Your task to perform on an android device: Search for a new lawnmower on Lowes.com Image 0: 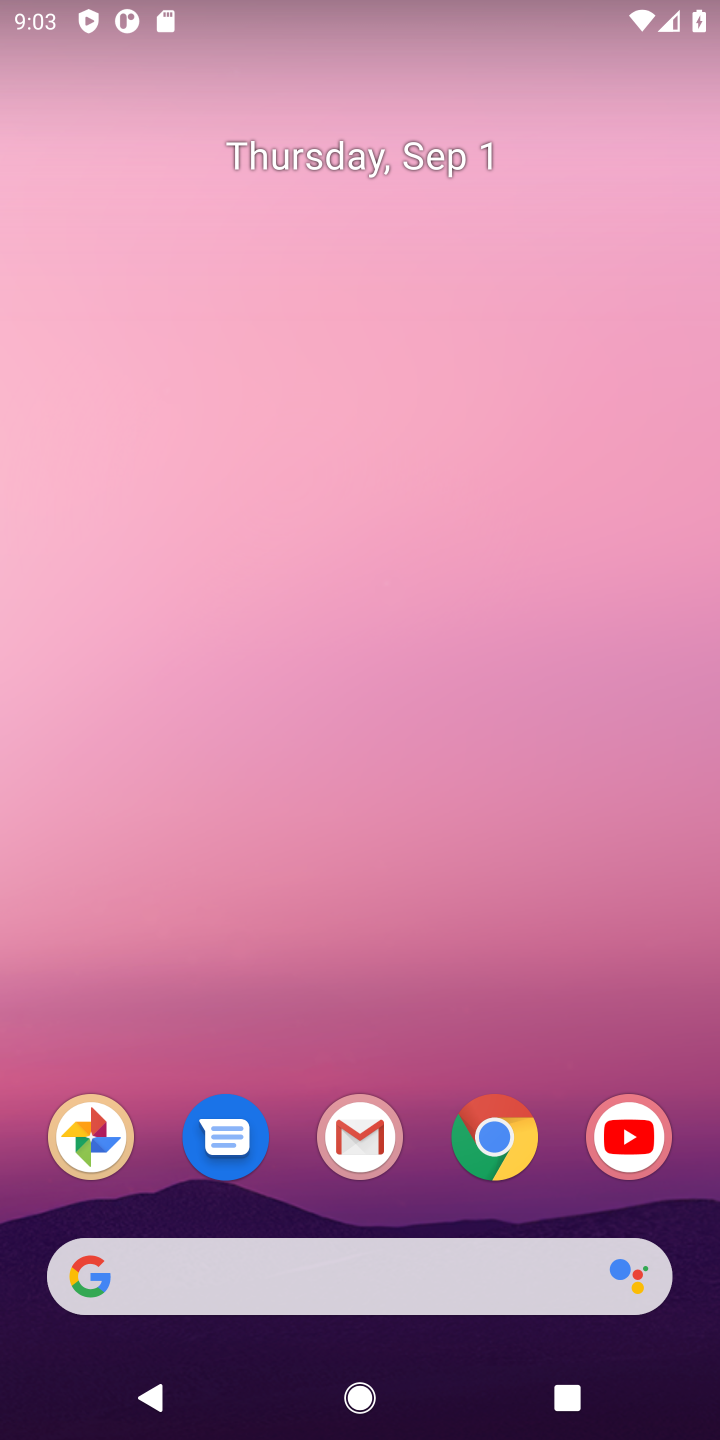
Step 0: drag from (453, 497) to (453, 122)
Your task to perform on an android device: Search for a new lawnmower on Lowes.com Image 1: 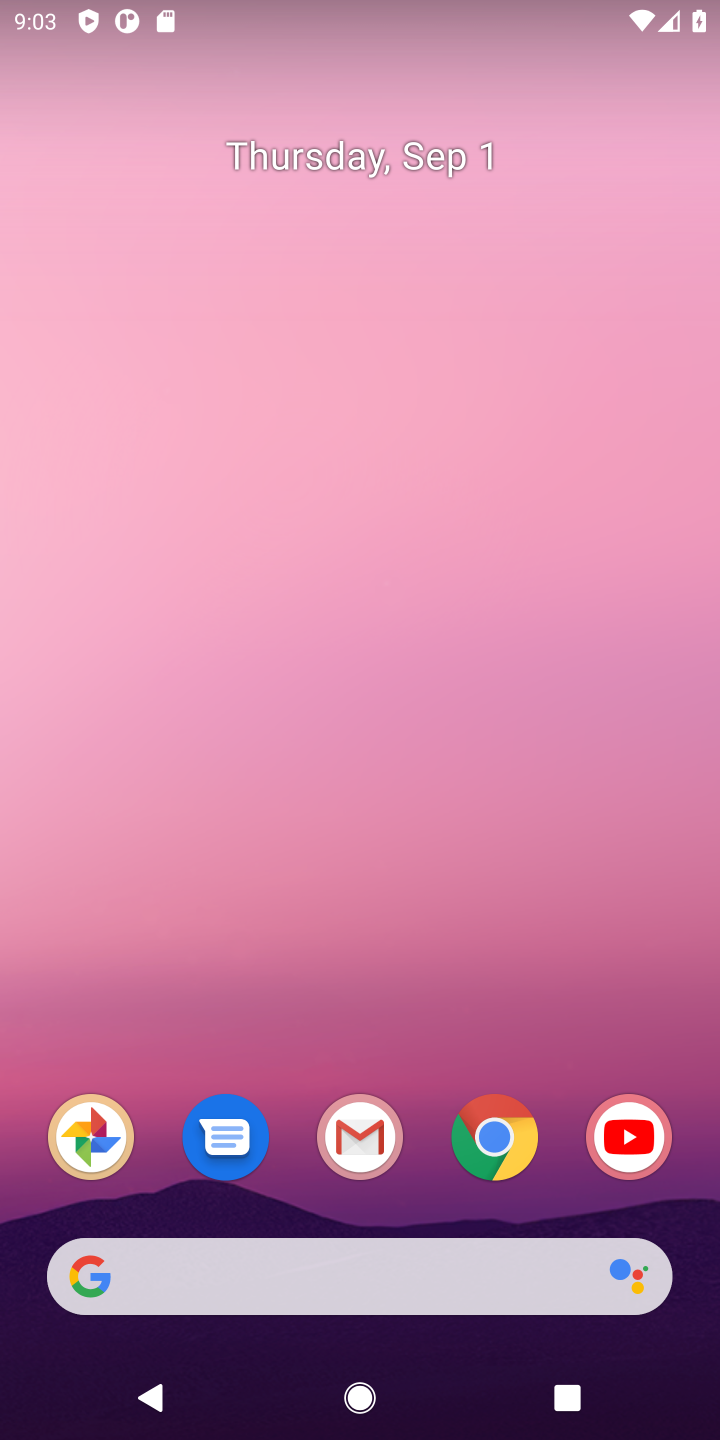
Step 1: click (491, 1132)
Your task to perform on an android device: Search for a new lawnmower on Lowes.com Image 2: 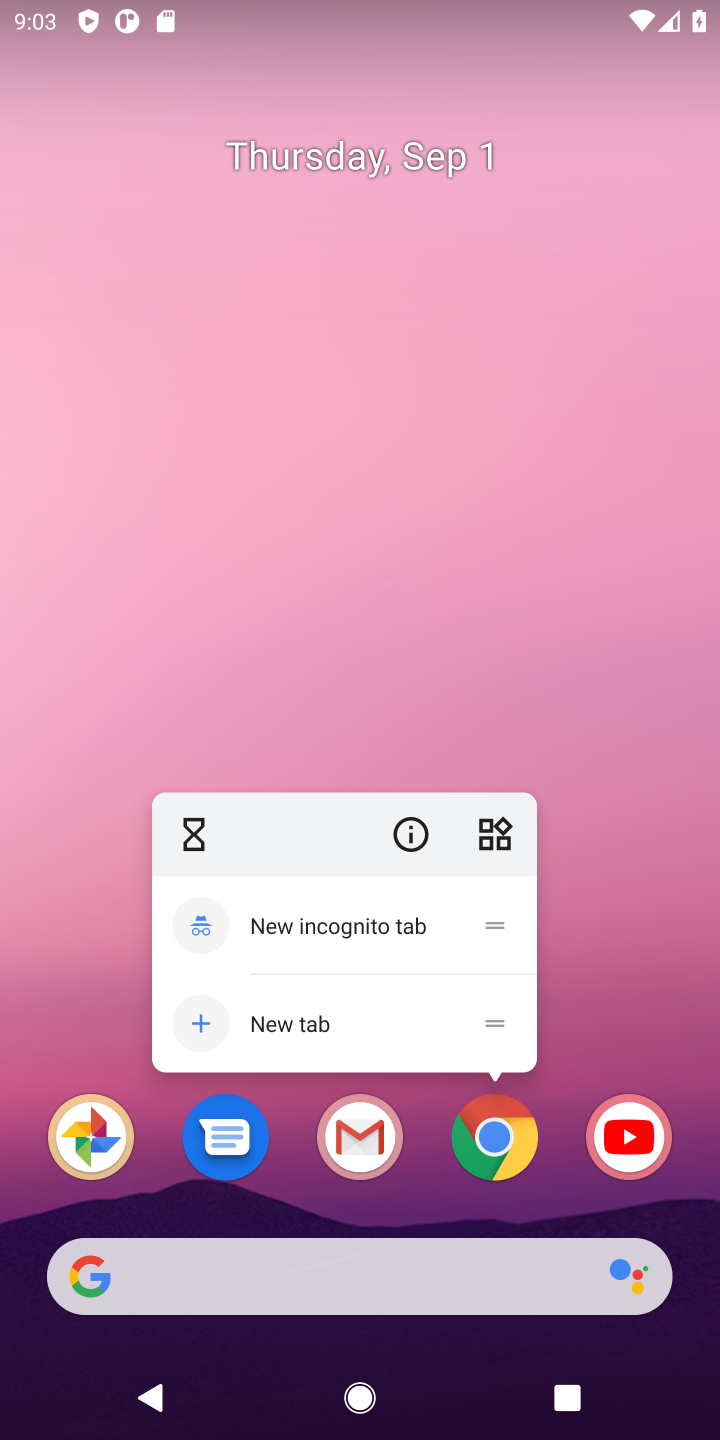
Step 2: click (491, 1138)
Your task to perform on an android device: Search for a new lawnmower on Lowes.com Image 3: 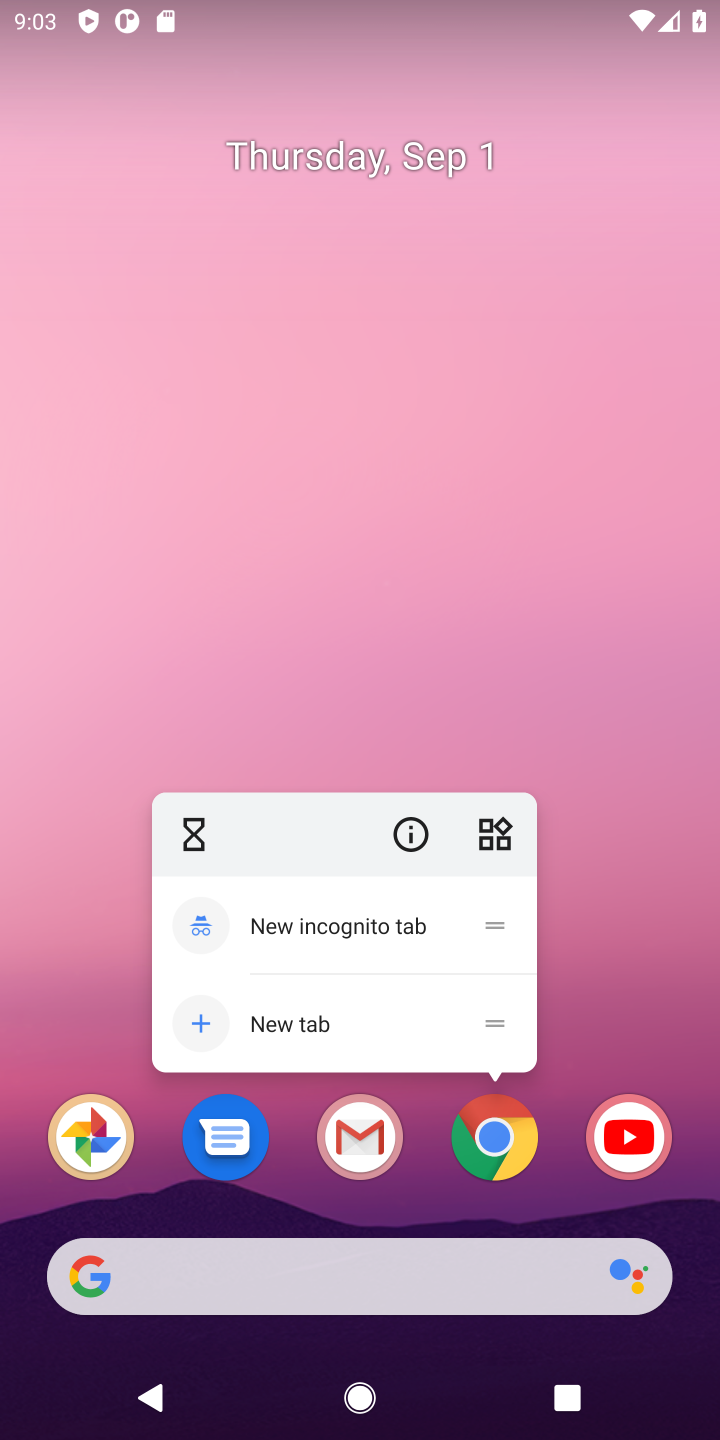
Step 3: click (566, 1052)
Your task to perform on an android device: Search for a new lawnmower on Lowes.com Image 4: 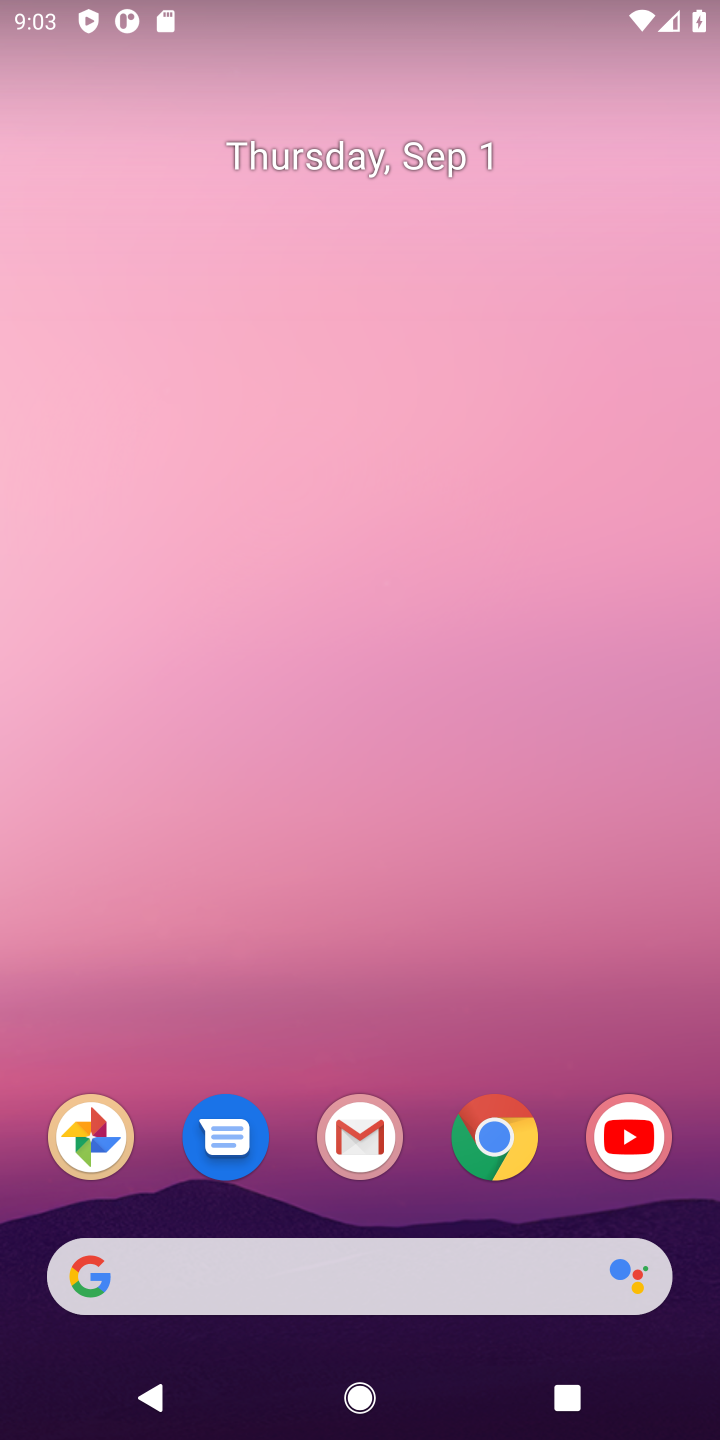
Step 4: drag from (557, 1084) to (549, 40)
Your task to perform on an android device: Search for a new lawnmower on Lowes.com Image 5: 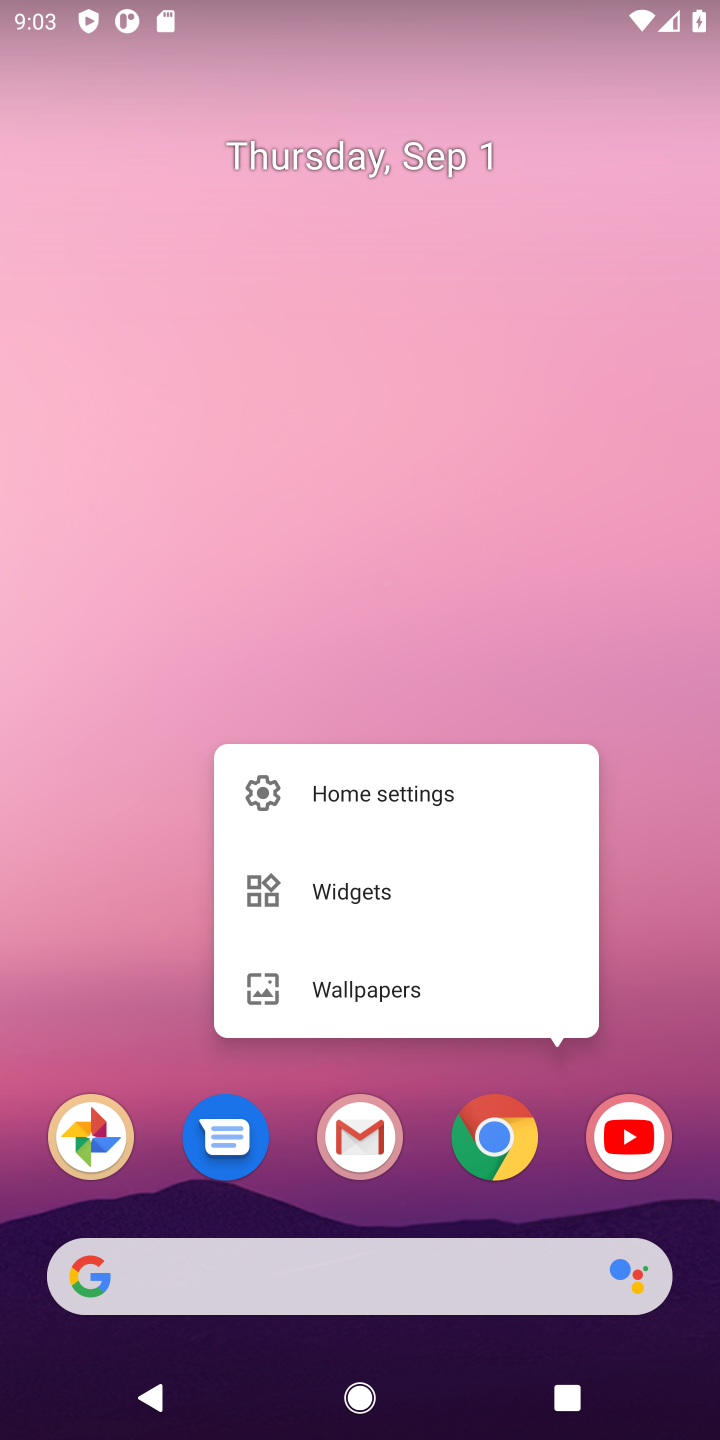
Step 5: click (463, 579)
Your task to perform on an android device: Search for a new lawnmower on Lowes.com Image 6: 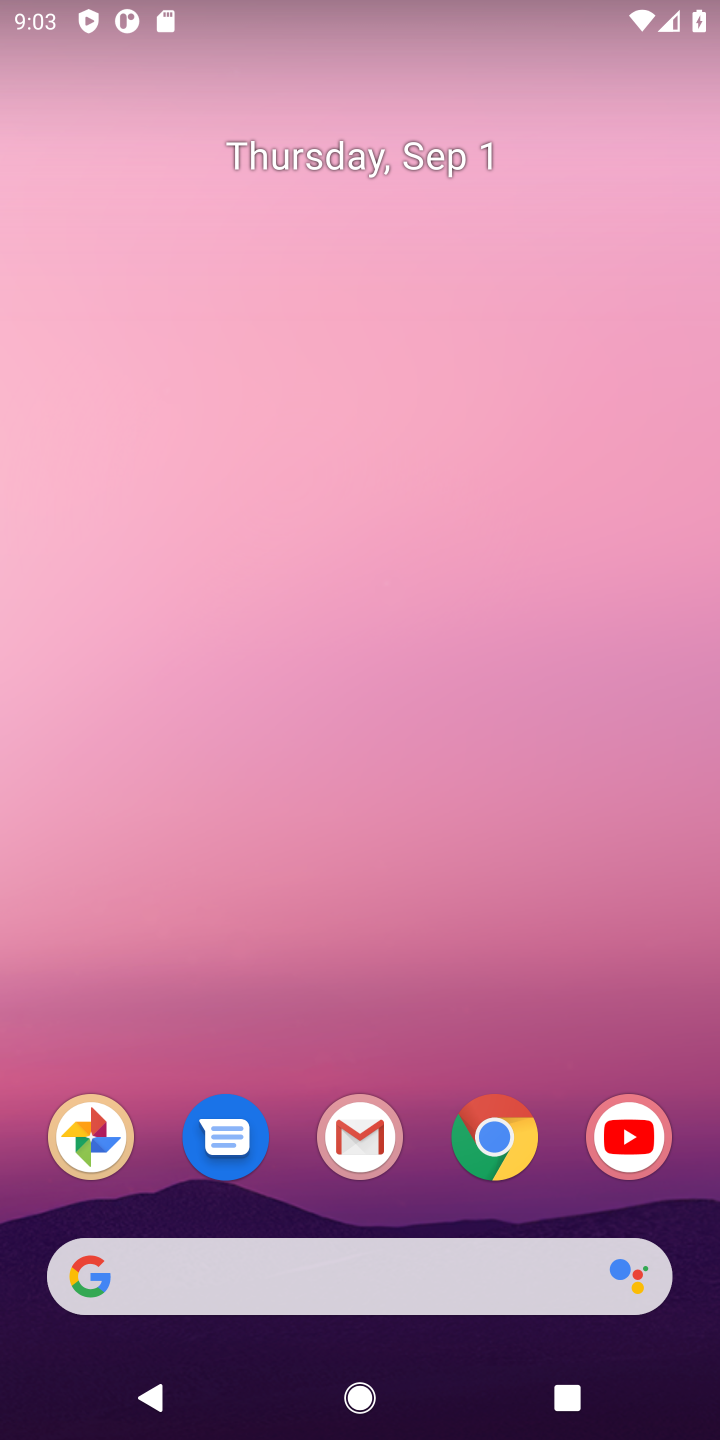
Step 6: drag from (542, 1091) to (550, 63)
Your task to perform on an android device: Search for a new lawnmower on Lowes.com Image 7: 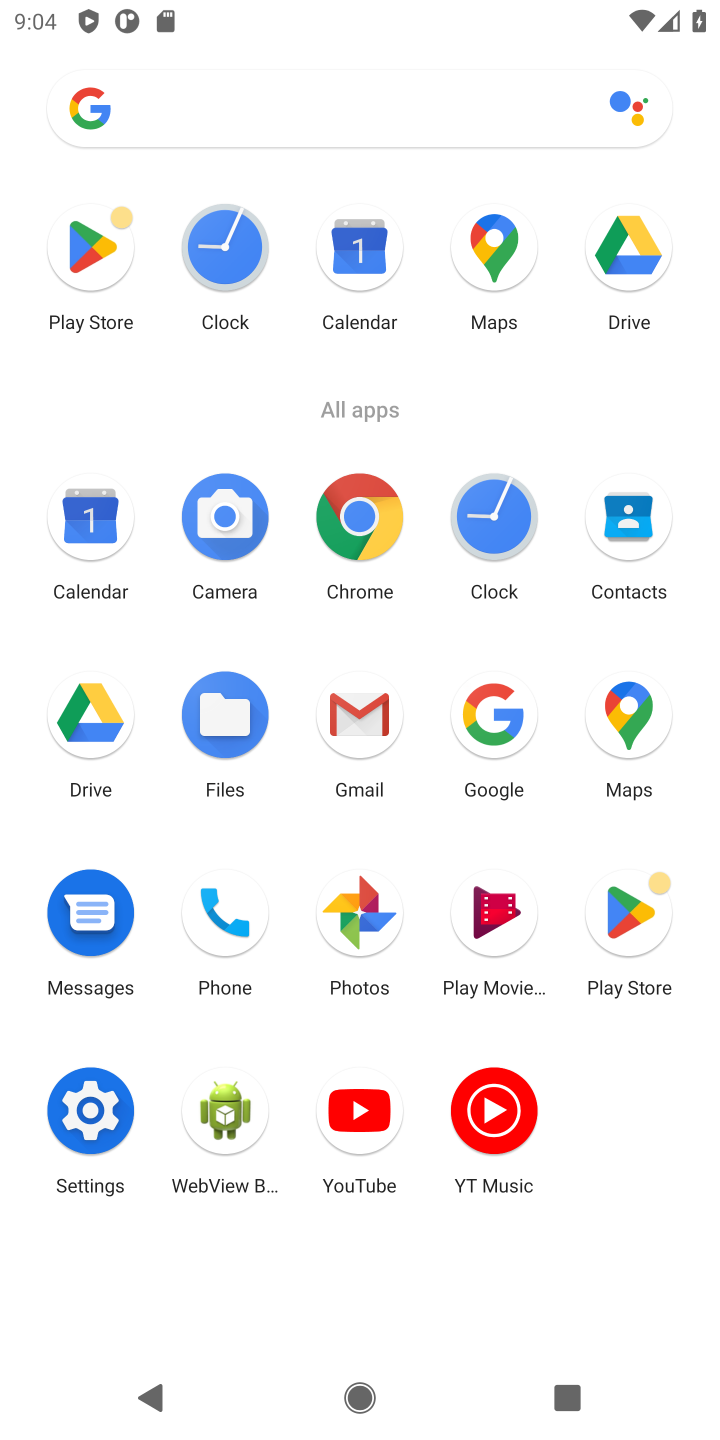
Step 7: click (352, 499)
Your task to perform on an android device: Search for a new lawnmower on Lowes.com Image 8: 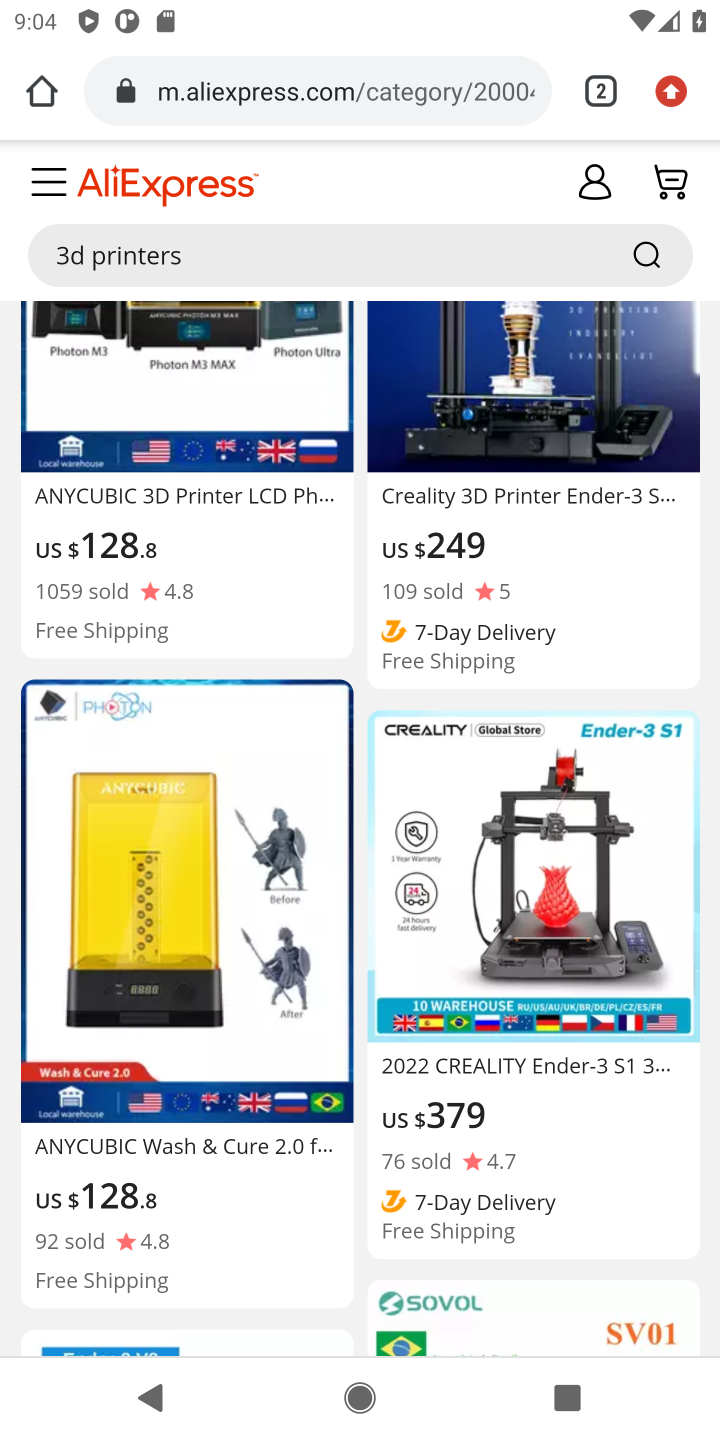
Step 8: click (440, 90)
Your task to perform on an android device: Search for a new lawnmower on Lowes.com Image 9: 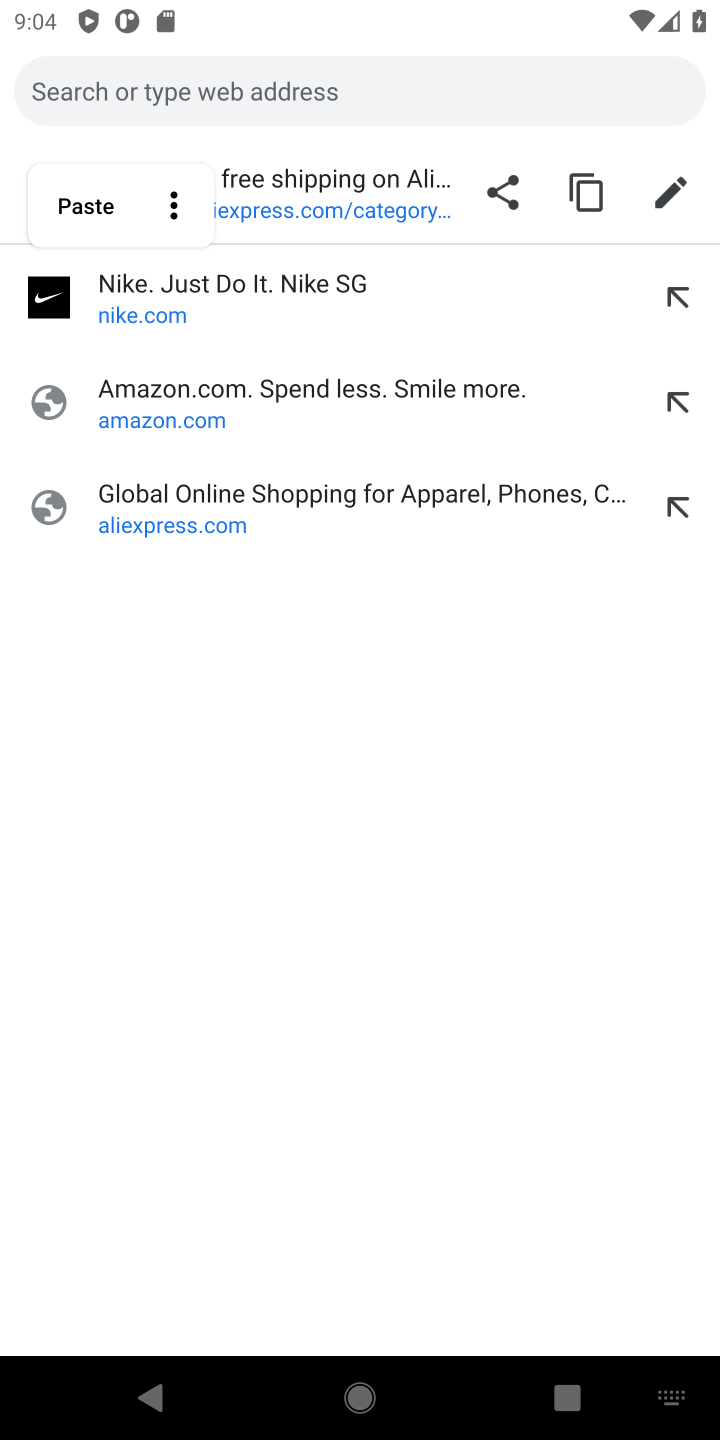
Step 9: type "new lawnmower on Lowes.com"
Your task to perform on an android device: Search for a new lawnmower on Lowes.com Image 10: 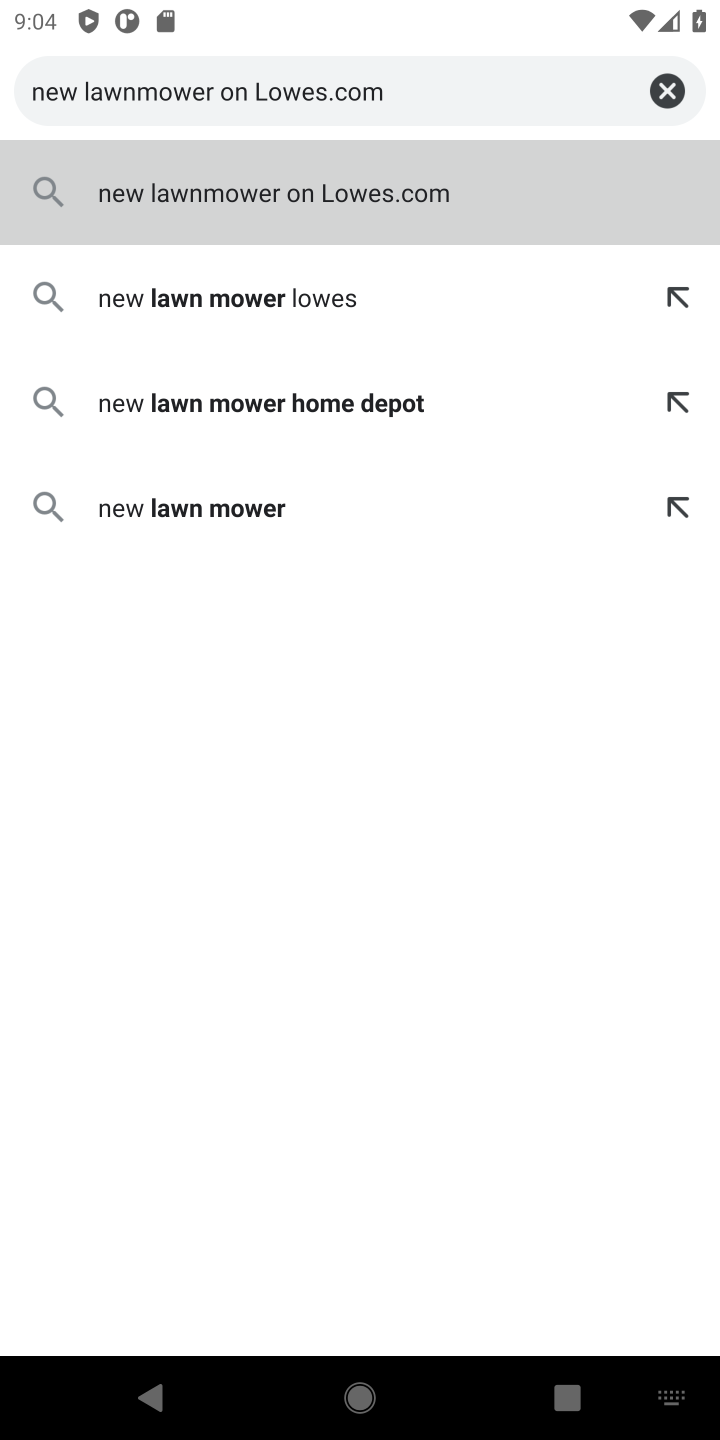
Step 10: click (282, 204)
Your task to perform on an android device: Search for a new lawnmower on Lowes.com Image 11: 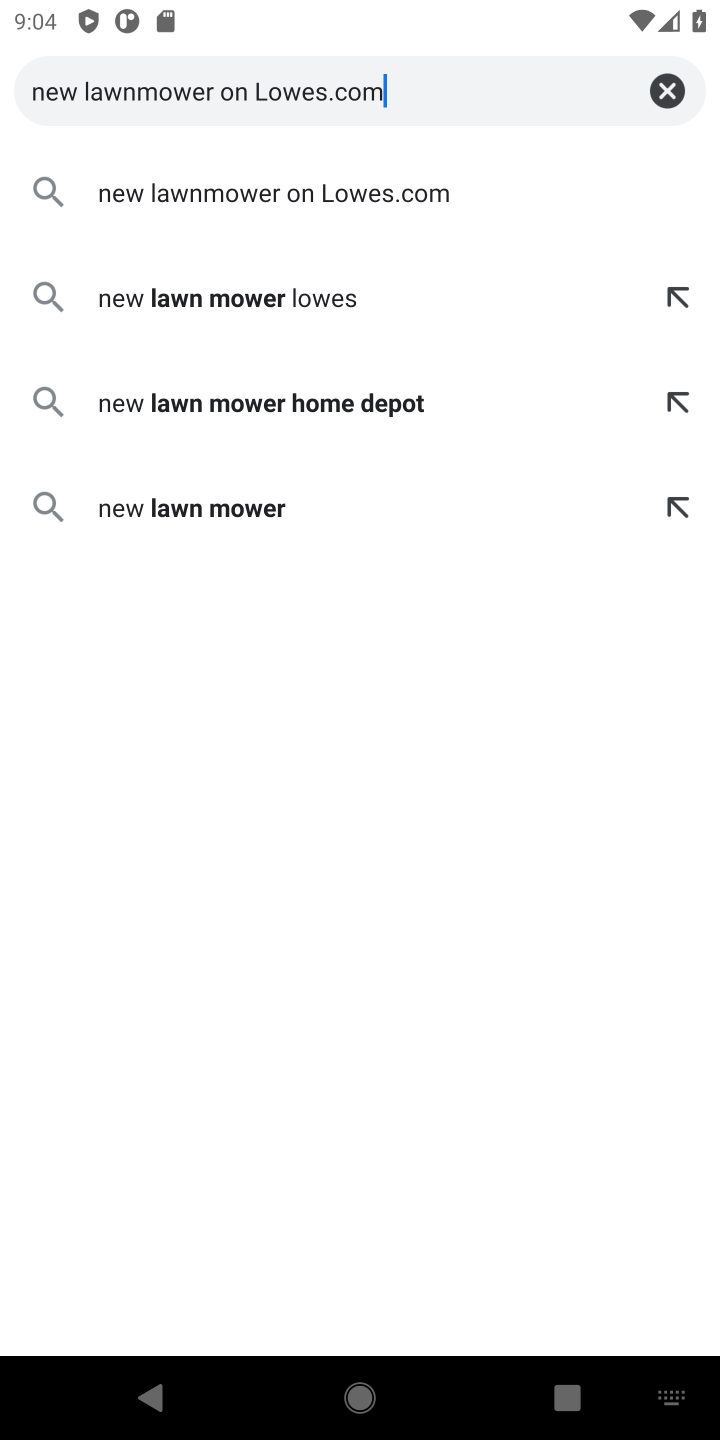
Step 11: click (282, 204)
Your task to perform on an android device: Search for a new lawnmower on Lowes.com Image 12: 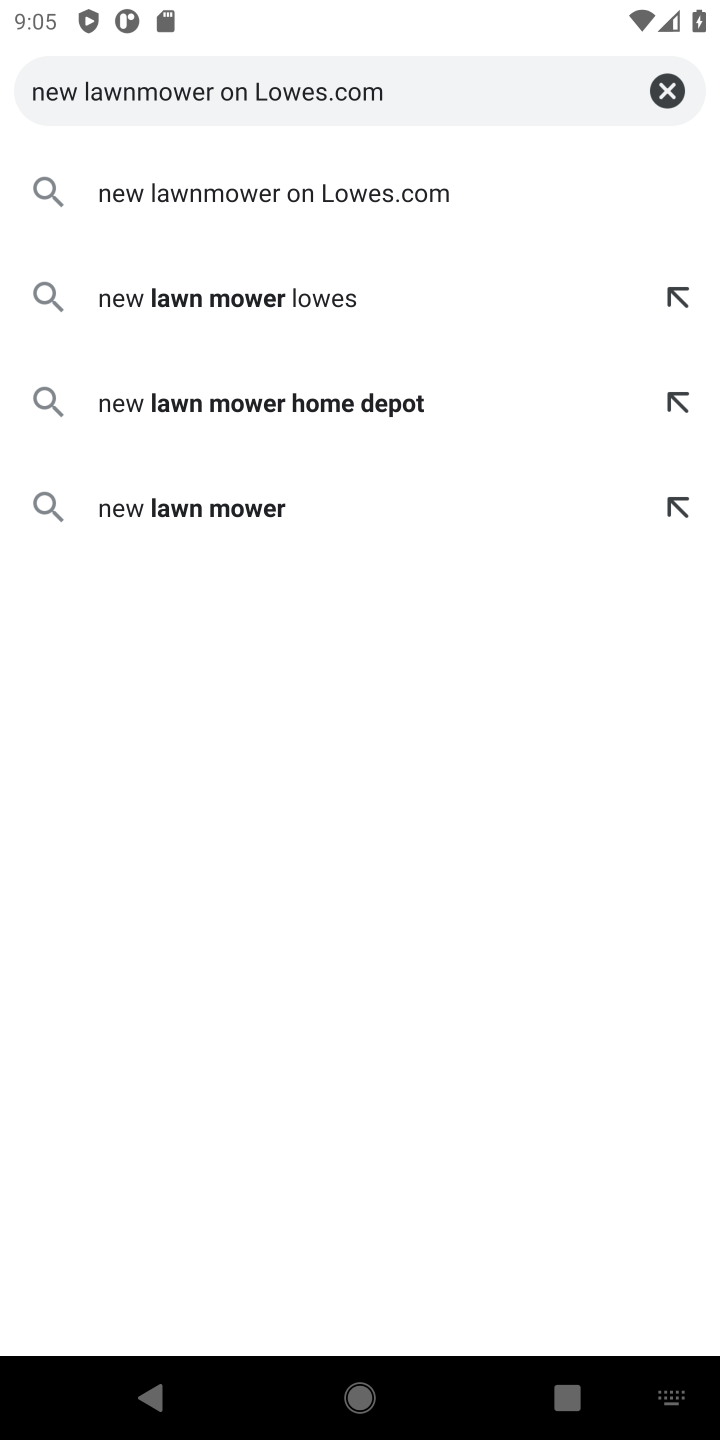
Step 12: click (185, 206)
Your task to perform on an android device: Search for a new lawnmower on Lowes.com Image 13: 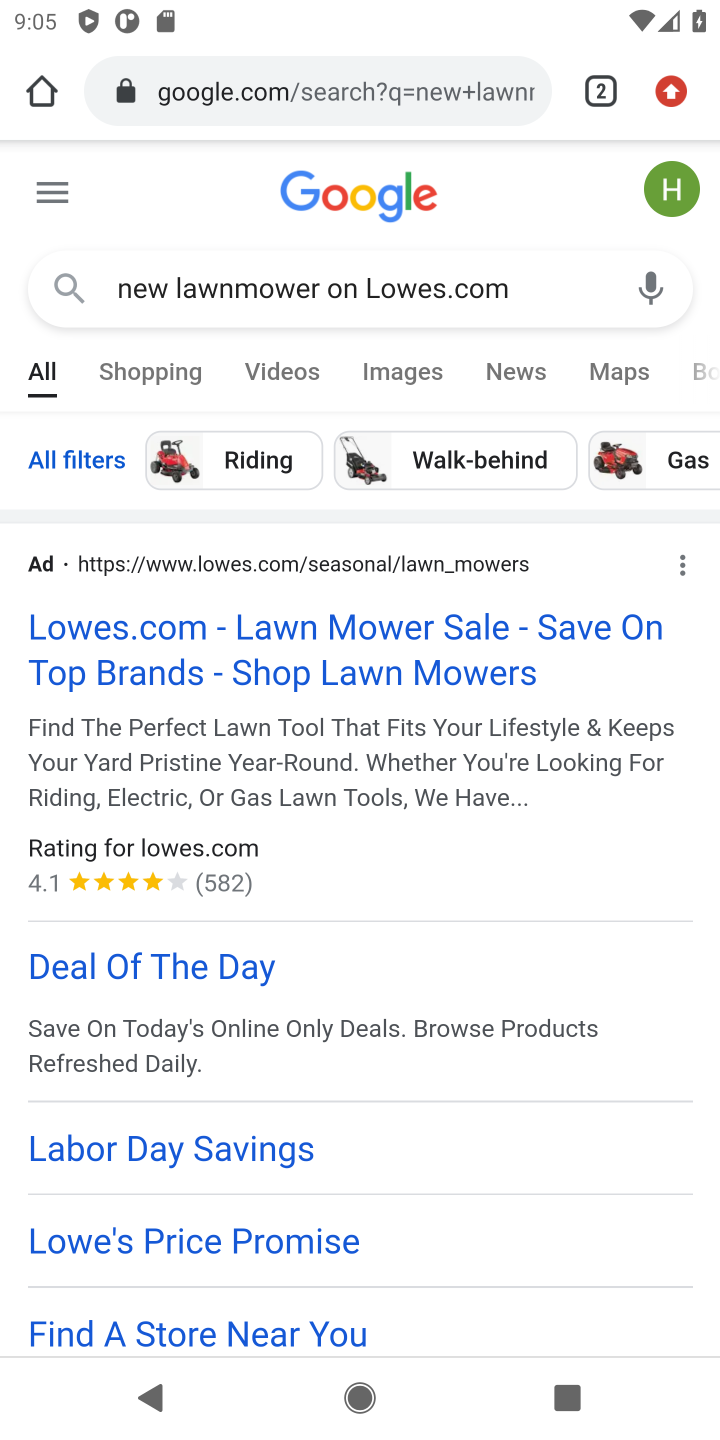
Step 13: click (296, 679)
Your task to perform on an android device: Search for a new lawnmower on Lowes.com Image 14: 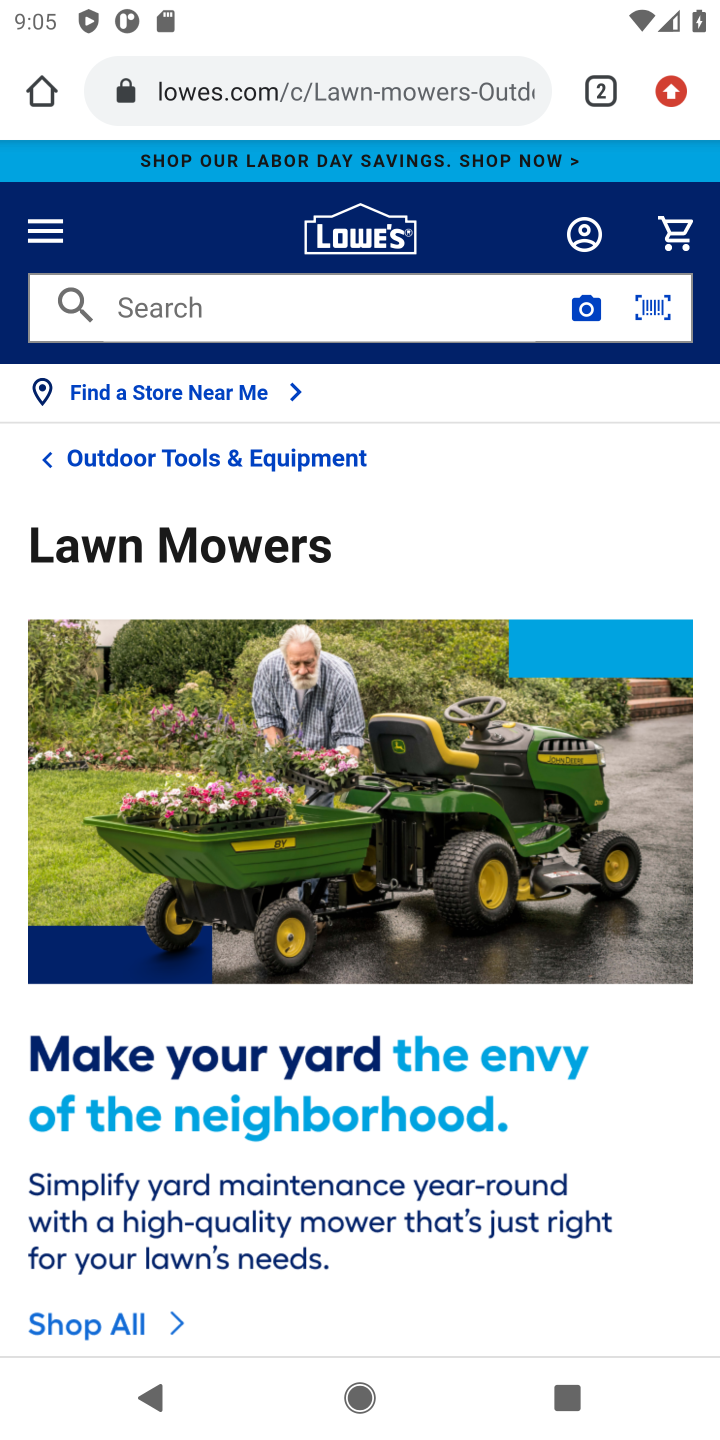
Step 14: drag from (367, 1170) to (372, 348)
Your task to perform on an android device: Search for a new lawnmower on Lowes.com Image 15: 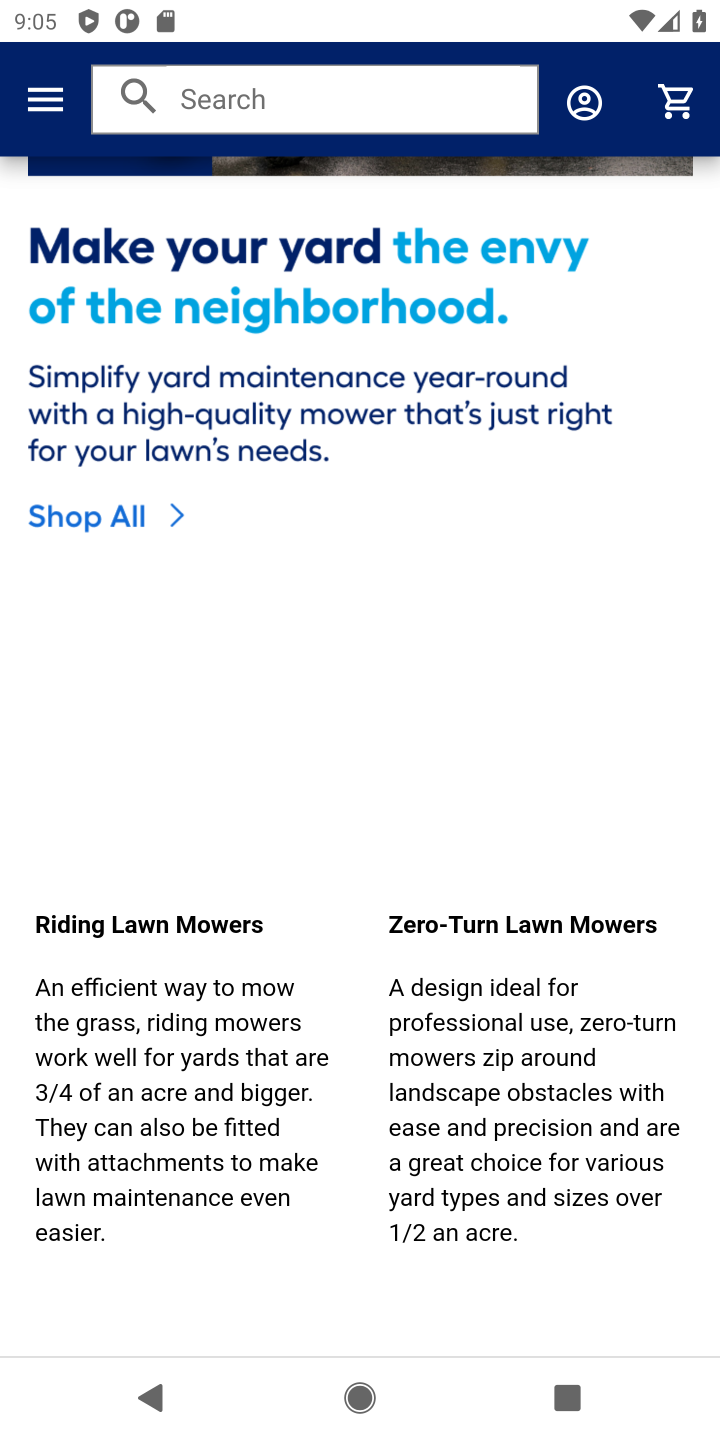
Step 15: drag from (368, 1128) to (377, 512)
Your task to perform on an android device: Search for a new lawnmower on Lowes.com Image 16: 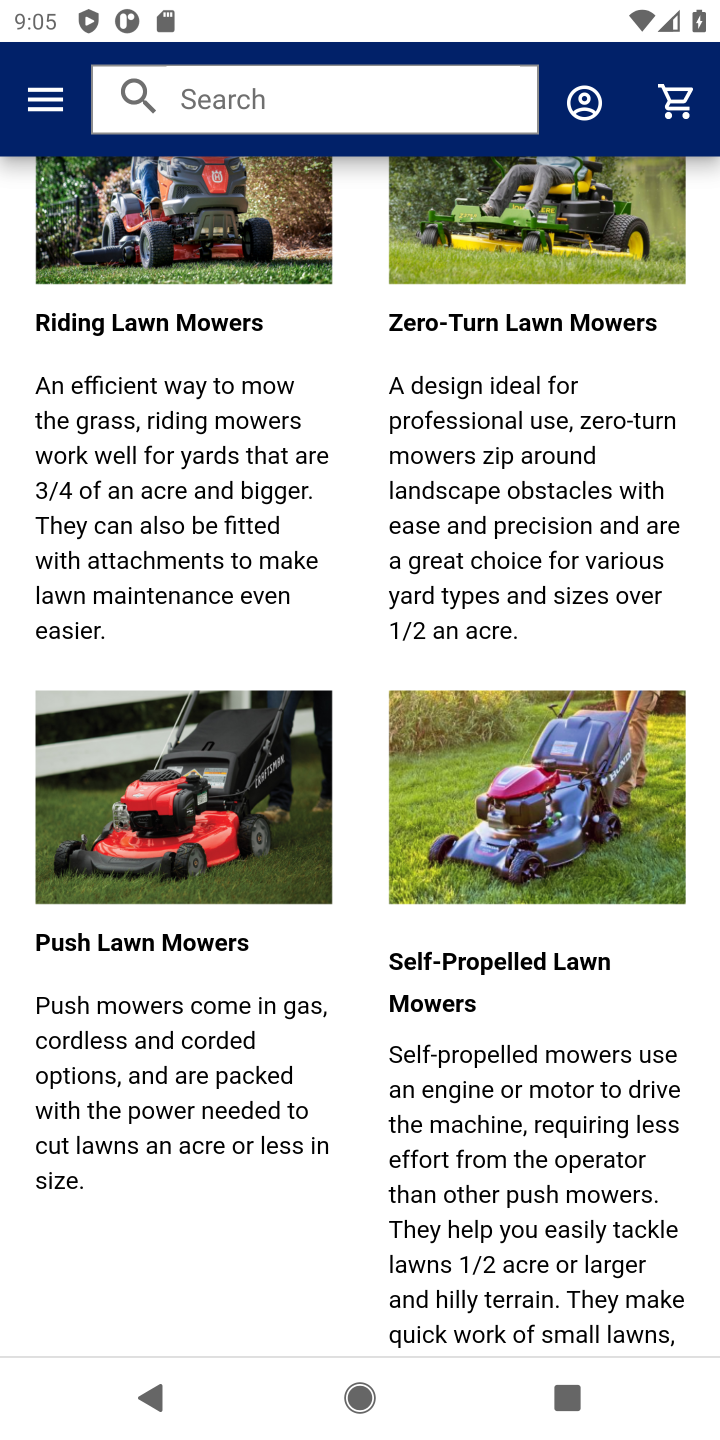
Step 16: drag from (392, 977) to (386, 704)
Your task to perform on an android device: Search for a new lawnmower on Lowes.com Image 17: 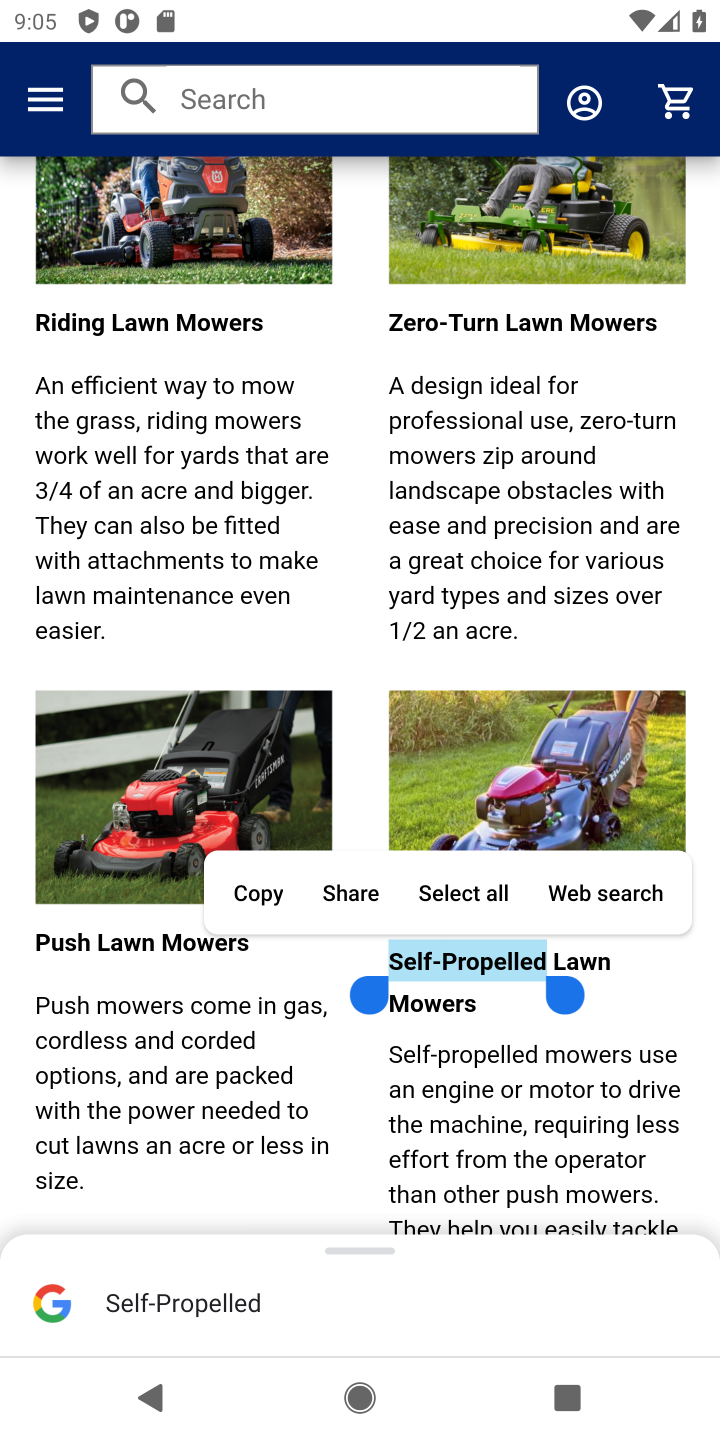
Step 17: drag from (351, 808) to (359, 506)
Your task to perform on an android device: Search for a new lawnmower on Lowes.com Image 18: 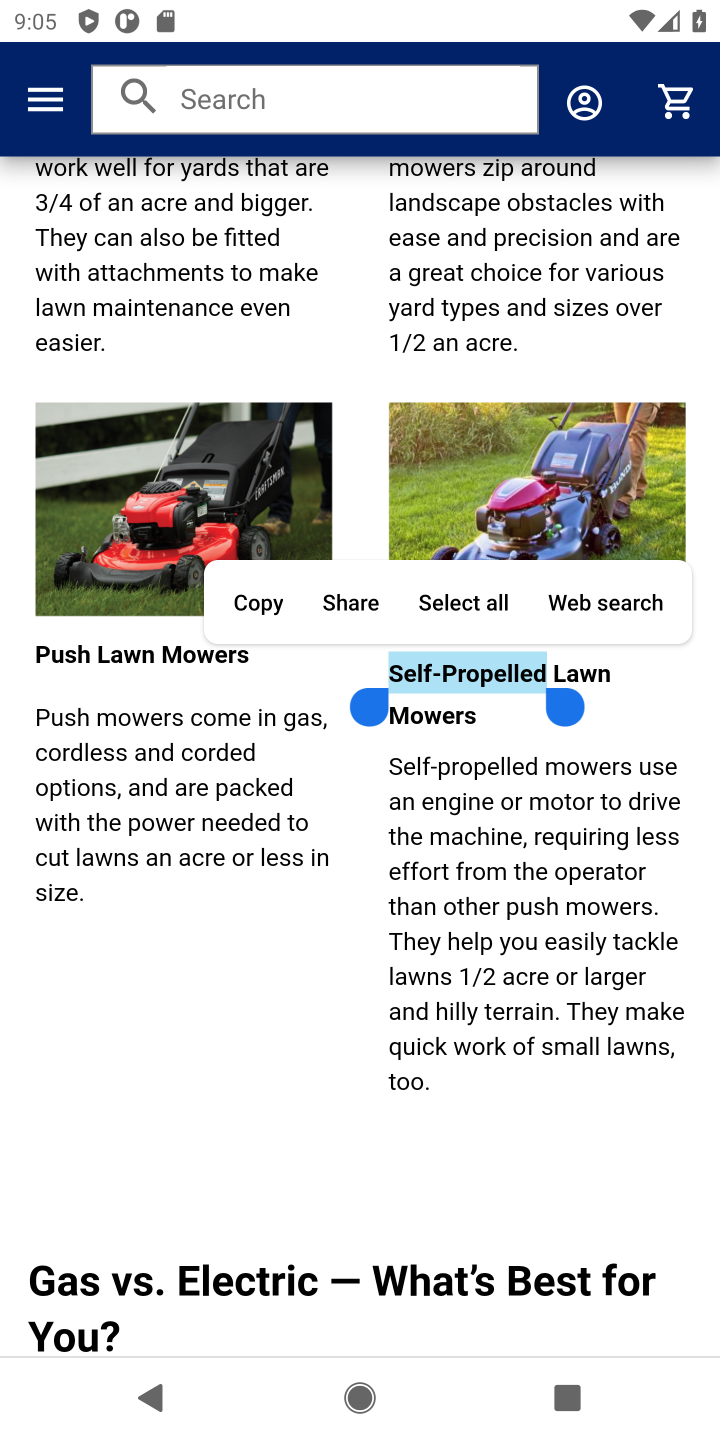
Step 18: click (350, 1191)
Your task to perform on an android device: Search for a new lawnmower on Lowes.com Image 19: 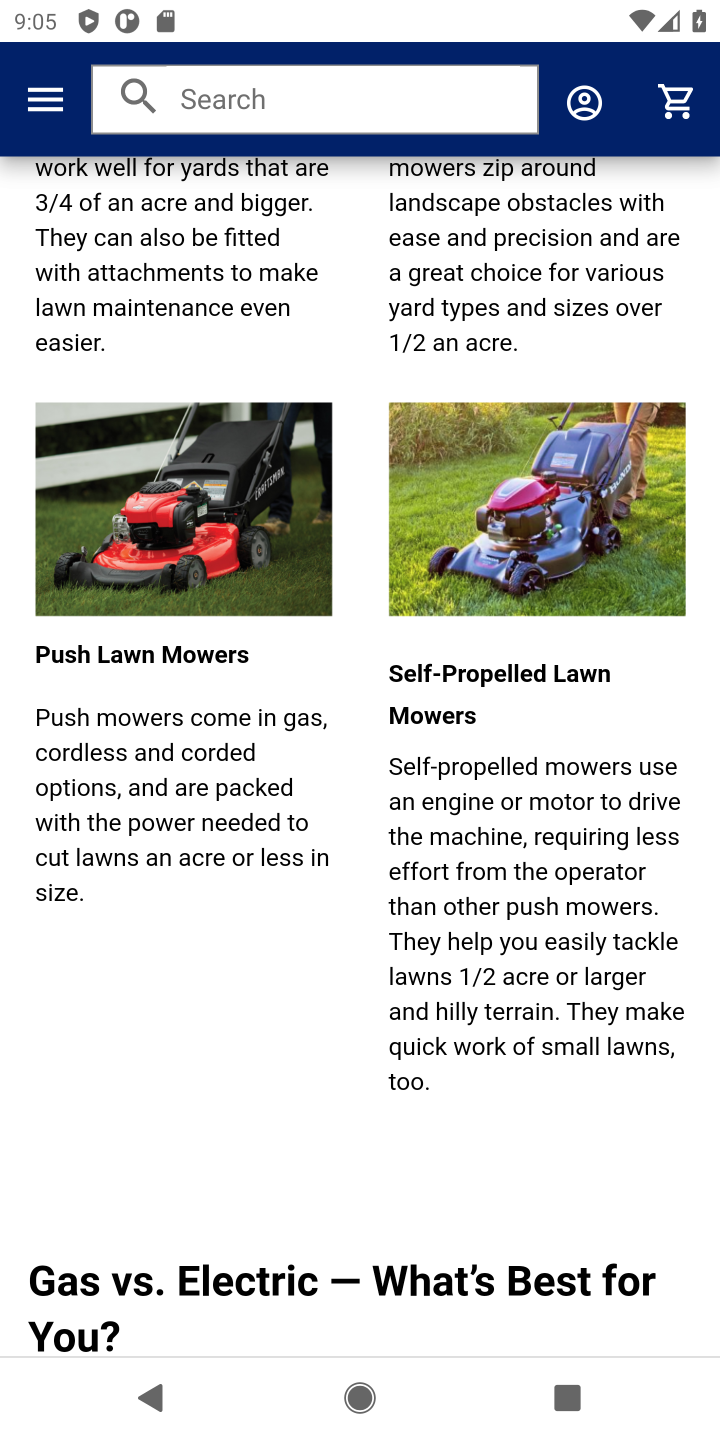
Step 19: drag from (349, 1133) to (363, 476)
Your task to perform on an android device: Search for a new lawnmower on Lowes.com Image 20: 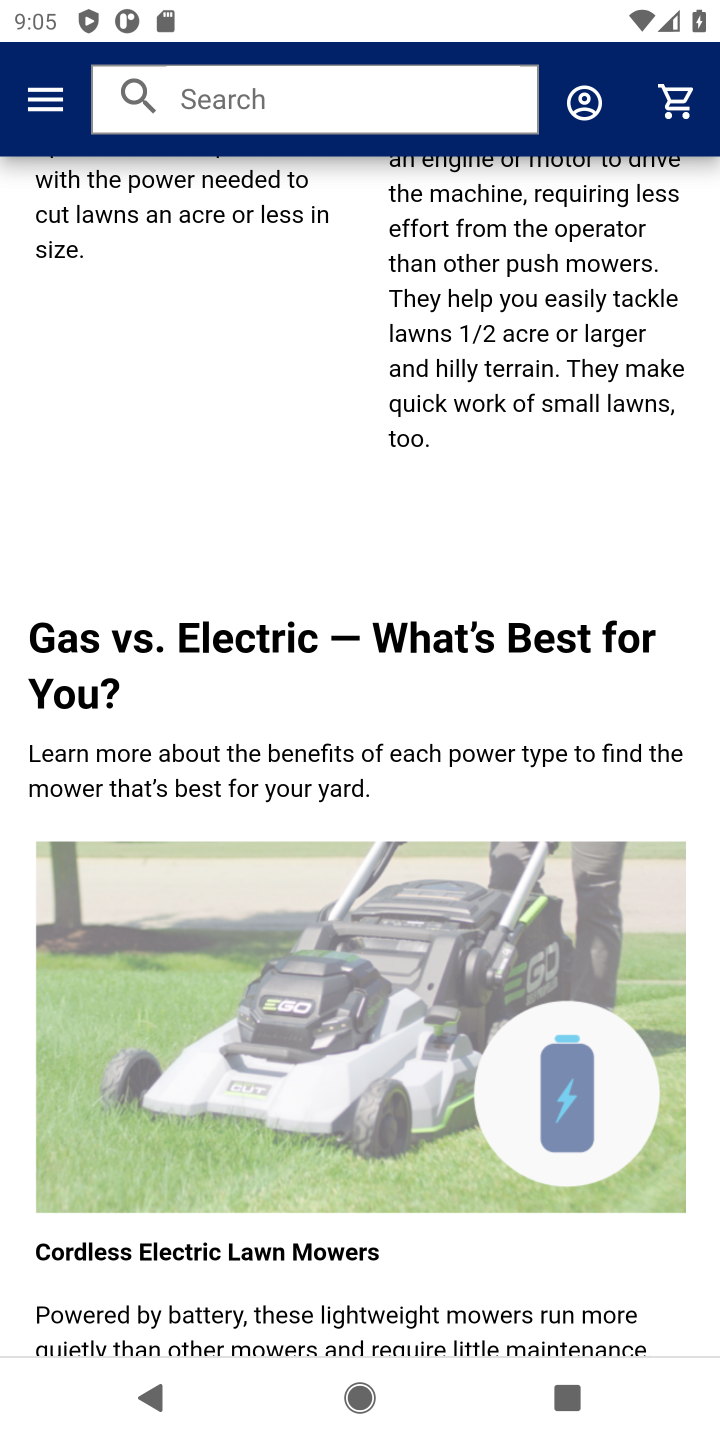
Step 20: drag from (372, 1078) to (348, 316)
Your task to perform on an android device: Search for a new lawnmower on Lowes.com Image 21: 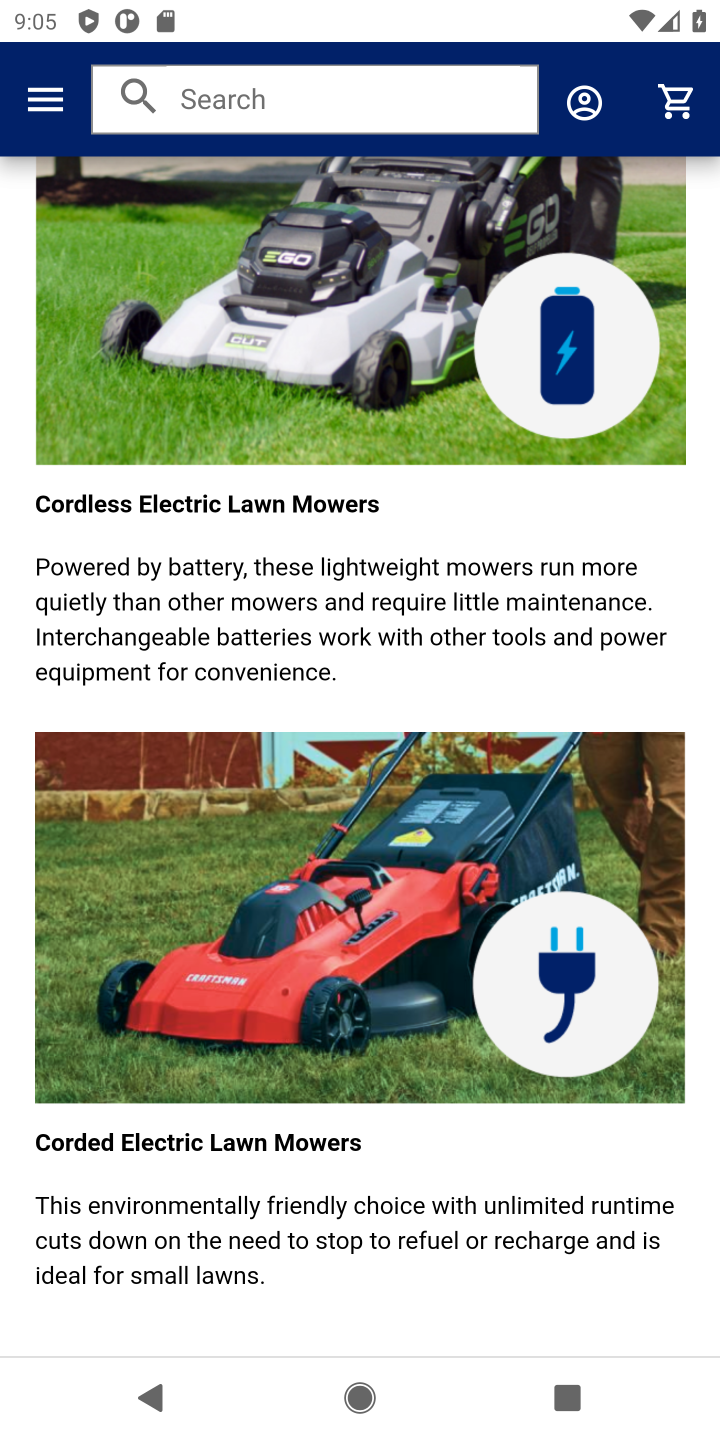
Step 21: drag from (383, 791) to (354, 386)
Your task to perform on an android device: Search for a new lawnmower on Lowes.com Image 22: 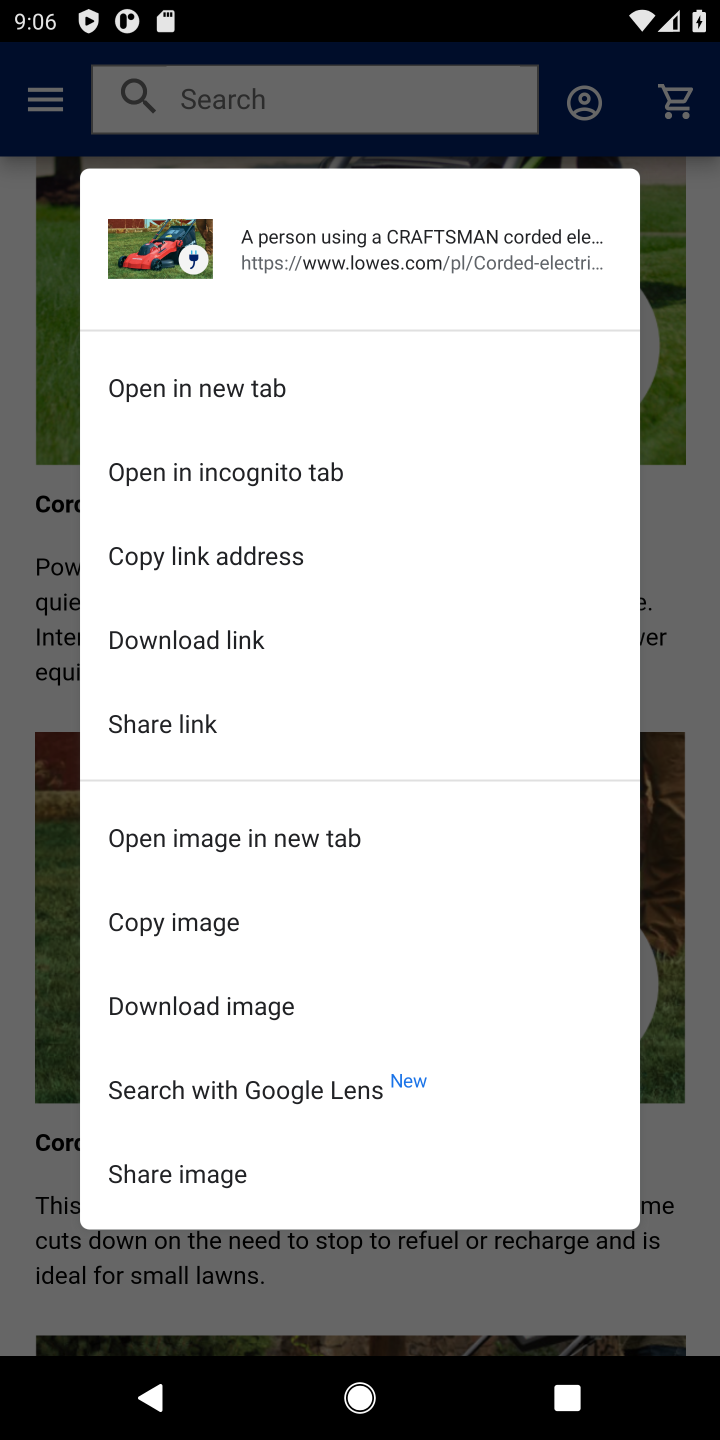
Step 22: click (36, 1278)
Your task to perform on an android device: Search for a new lawnmower on Lowes.com Image 23: 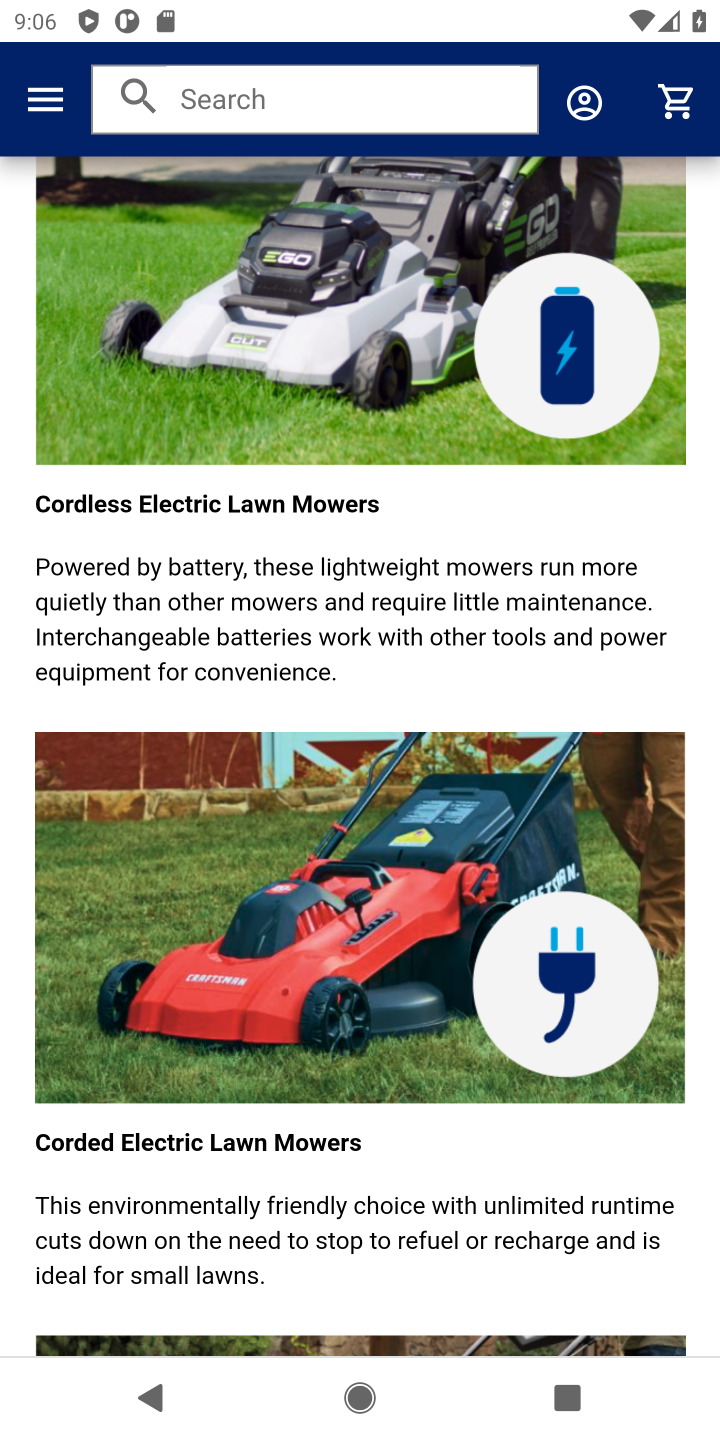
Step 23: click (390, 488)
Your task to perform on an android device: Search for a new lawnmower on Lowes.com Image 24: 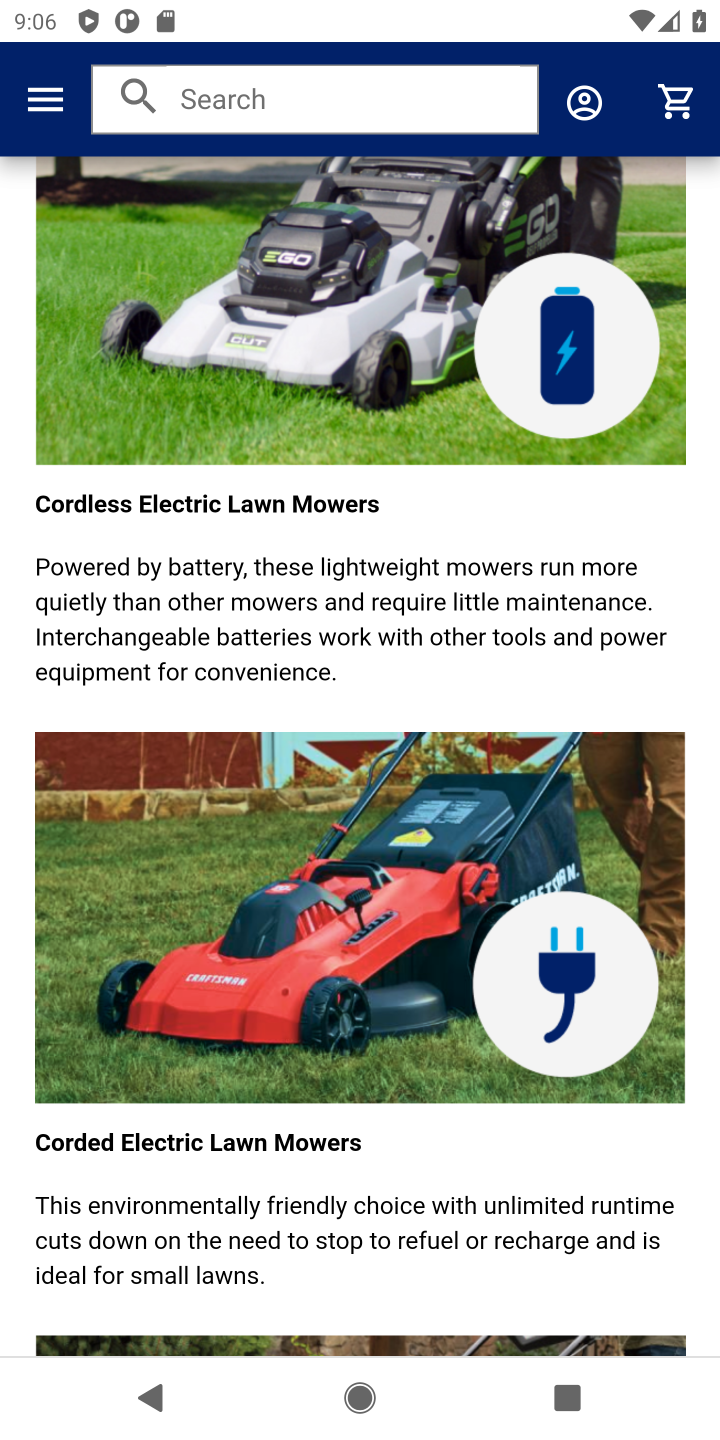
Step 24: task complete